Your task to perform on an android device: delete the emails in spam in the gmail app Image 0: 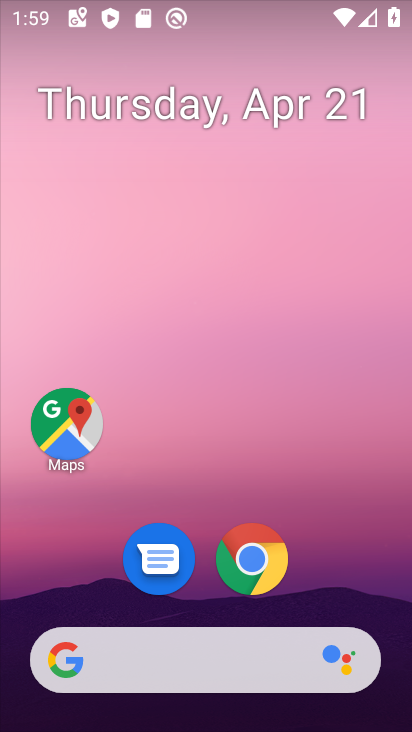
Step 0: drag from (209, 444) to (188, 41)
Your task to perform on an android device: delete the emails in spam in the gmail app Image 1: 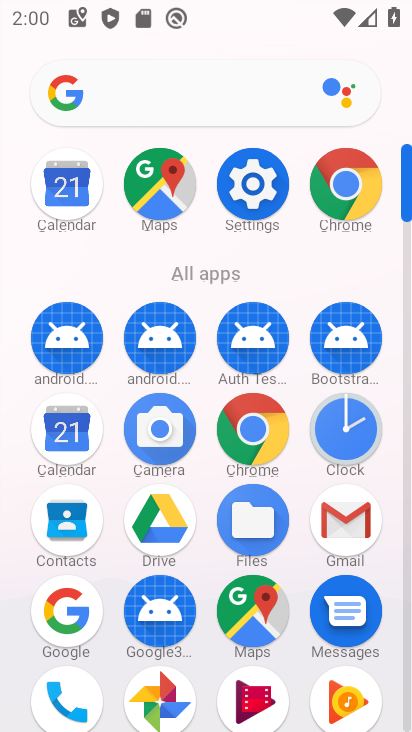
Step 1: click (349, 517)
Your task to perform on an android device: delete the emails in spam in the gmail app Image 2: 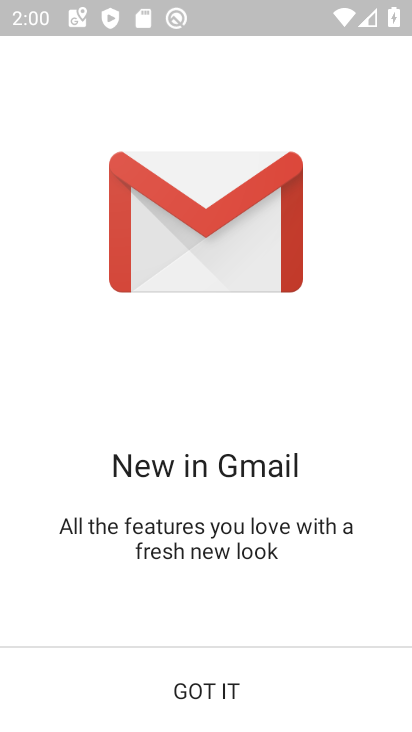
Step 2: click (195, 695)
Your task to perform on an android device: delete the emails in spam in the gmail app Image 3: 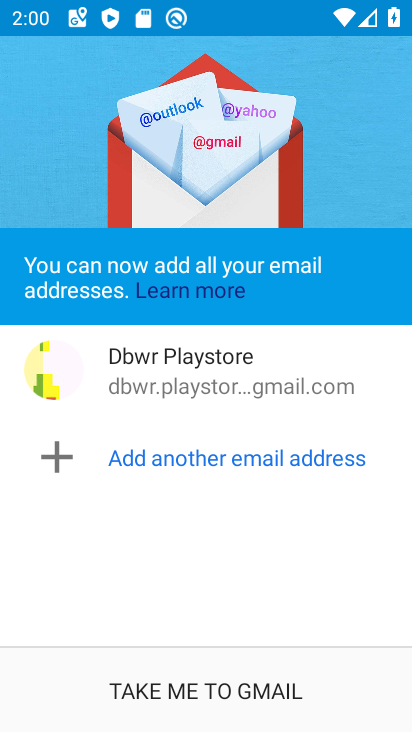
Step 3: click (195, 695)
Your task to perform on an android device: delete the emails in spam in the gmail app Image 4: 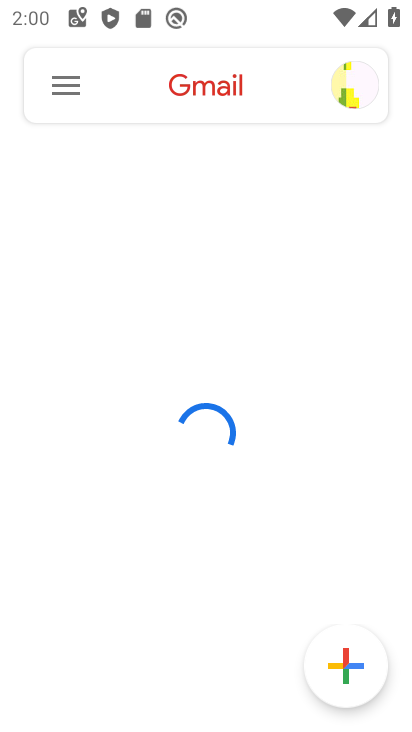
Step 4: click (59, 79)
Your task to perform on an android device: delete the emails in spam in the gmail app Image 5: 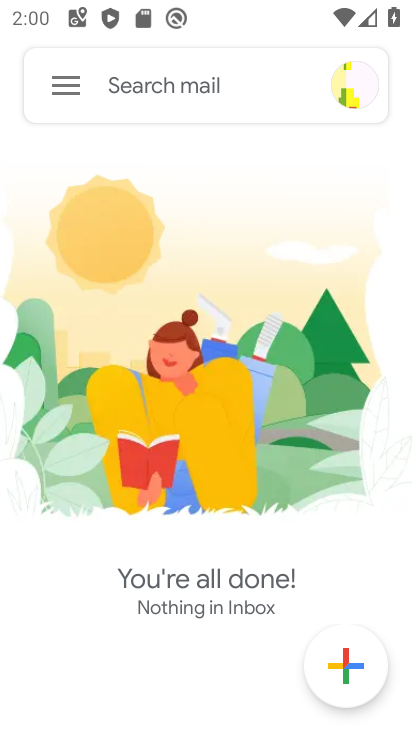
Step 5: click (59, 79)
Your task to perform on an android device: delete the emails in spam in the gmail app Image 6: 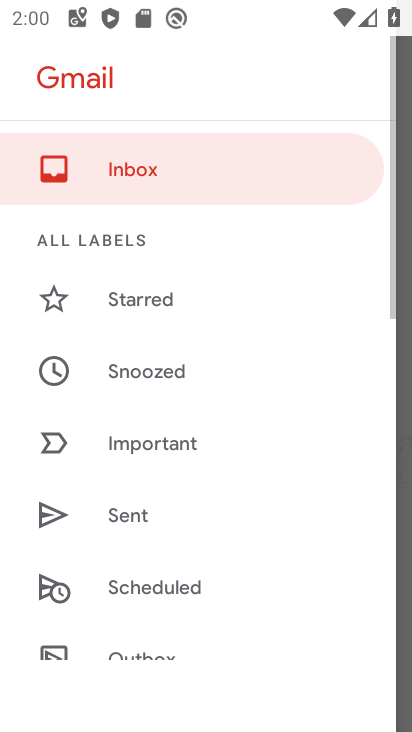
Step 6: drag from (197, 503) to (220, 272)
Your task to perform on an android device: delete the emails in spam in the gmail app Image 7: 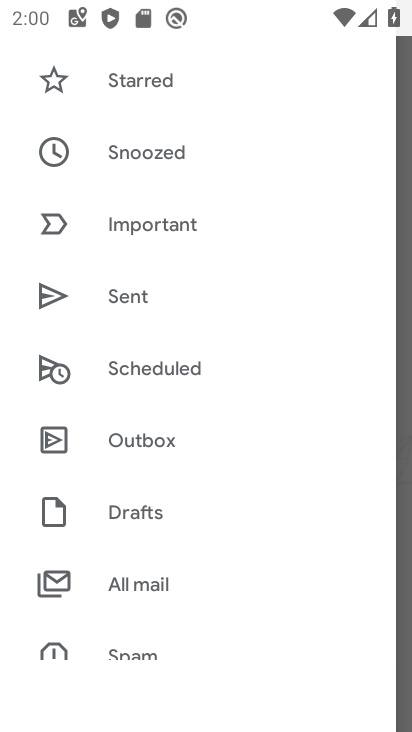
Step 7: drag from (187, 607) to (187, 418)
Your task to perform on an android device: delete the emails in spam in the gmail app Image 8: 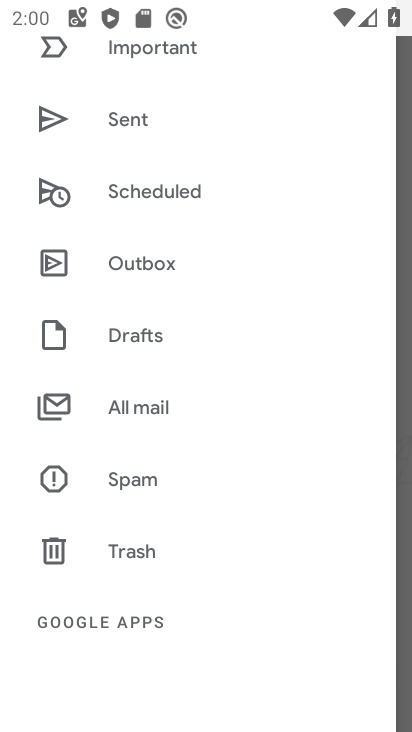
Step 8: click (151, 483)
Your task to perform on an android device: delete the emails in spam in the gmail app Image 9: 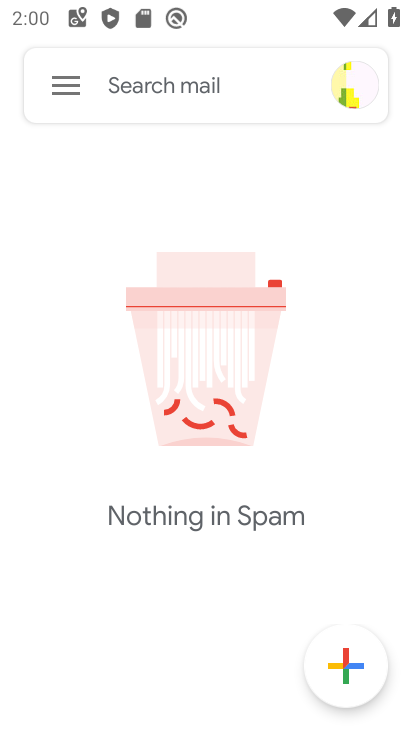
Step 9: task complete